Your task to perform on an android device: Open accessibility settings Image 0: 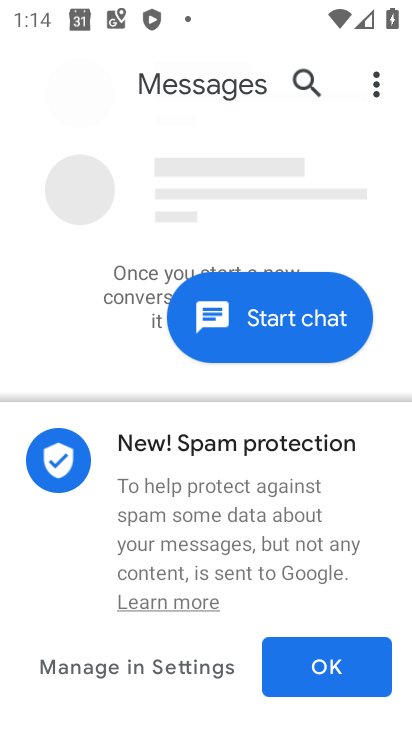
Step 0: press home button
Your task to perform on an android device: Open accessibility settings Image 1: 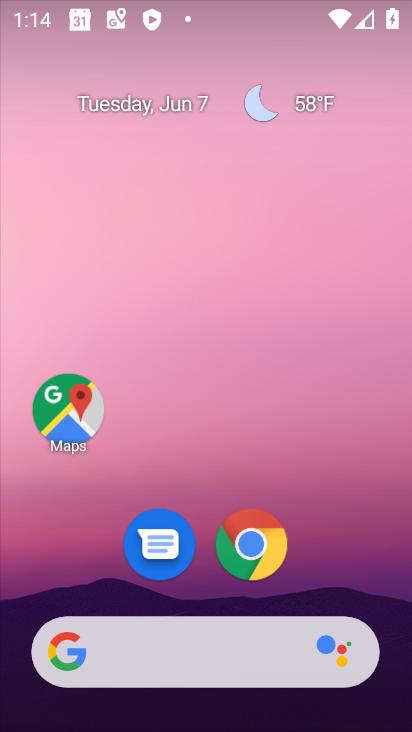
Step 1: drag from (211, 623) to (244, 111)
Your task to perform on an android device: Open accessibility settings Image 2: 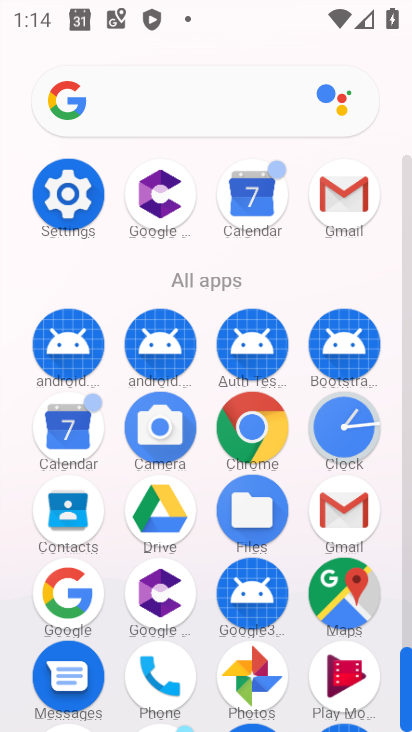
Step 2: click (70, 202)
Your task to perform on an android device: Open accessibility settings Image 3: 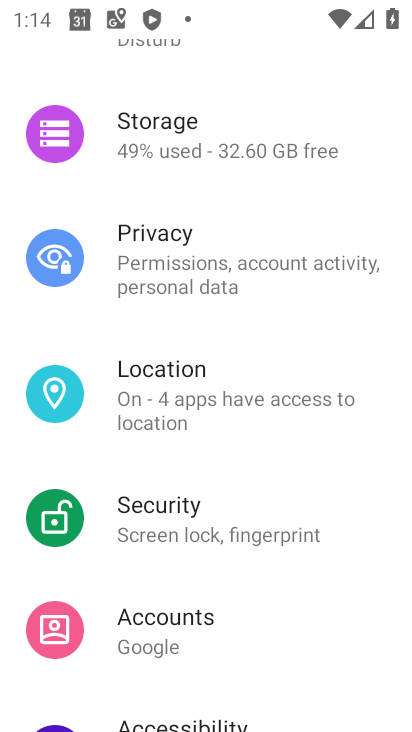
Step 3: drag from (192, 660) to (203, 153)
Your task to perform on an android device: Open accessibility settings Image 4: 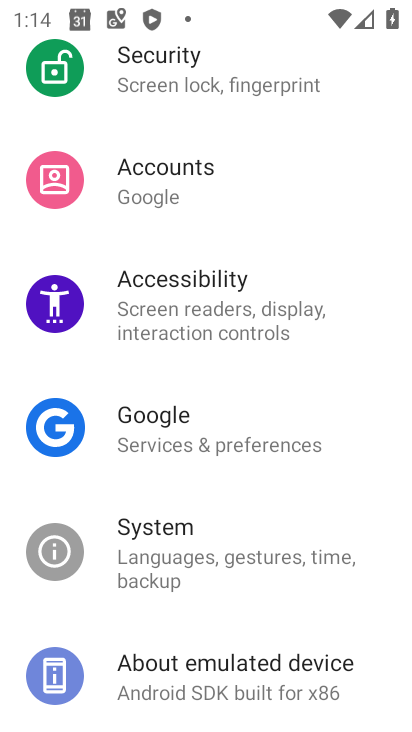
Step 4: click (190, 276)
Your task to perform on an android device: Open accessibility settings Image 5: 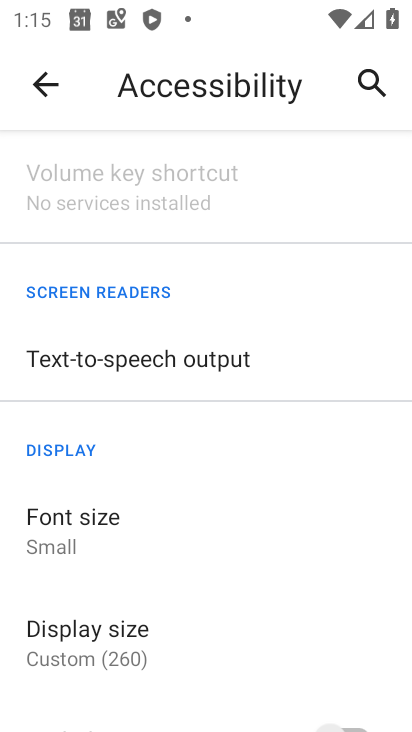
Step 5: task complete